Your task to perform on an android device: Open the phone app and click the voicemail tab. Image 0: 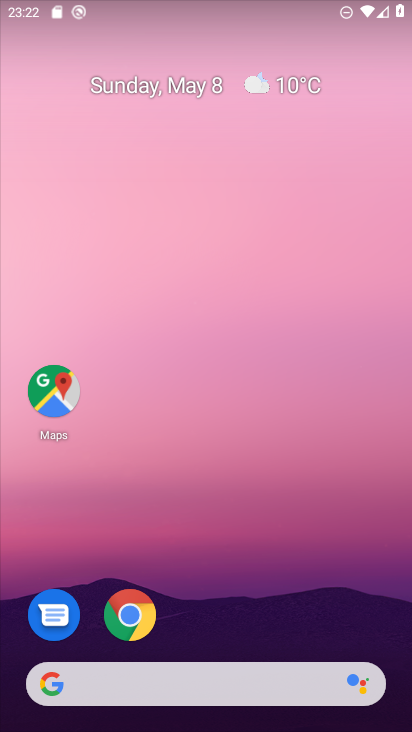
Step 0: drag from (320, 625) to (310, 76)
Your task to perform on an android device: Open the phone app and click the voicemail tab. Image 1: 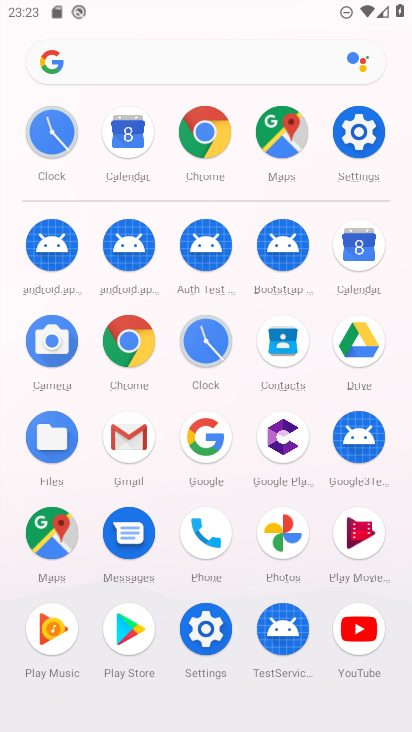
Step 1: click (200, 529)
Your task to perform on an android device: Open the phone app and click the voicemail tab. Image 2: 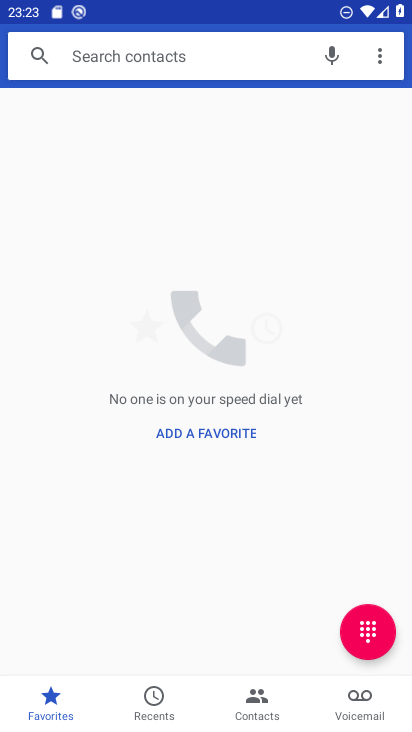
Step 2: click (356, 700)
Your task to perform on an android device: Open the phone app and click the voicemail tab. Image 3: 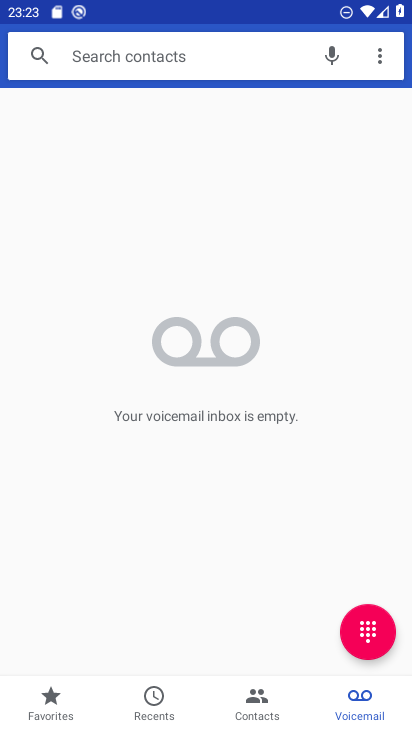
Step 3: task complete